Your task to perform on an android device: turn on sleep mode Image 0: 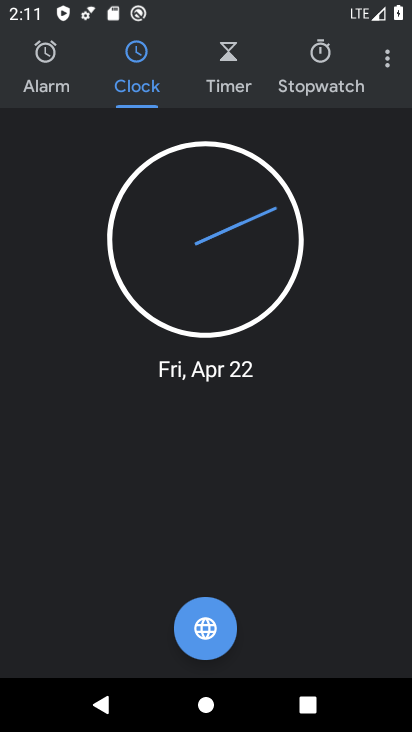
Step 0: press home button
Your task to perform on an android device: turn on sleep mode Image 1: 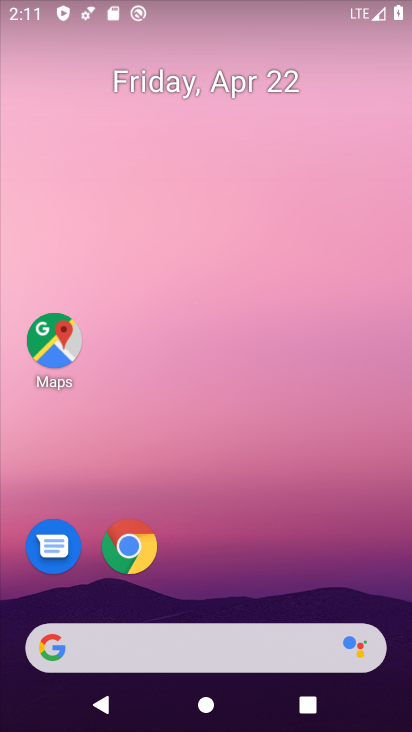
Step 1: drag from (214, 570) to (234, 130)
Your task to perform on an android device: turn on sleep mode Image 2: 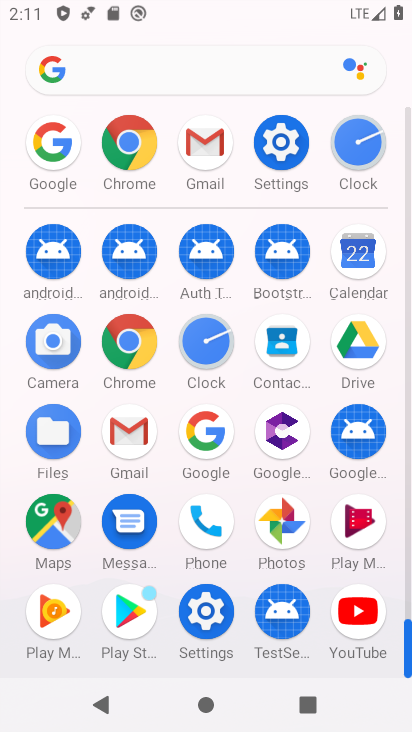
Step 2: click (293, 158)
Your task to perform on an android device: turn on sleep mode Image 3: 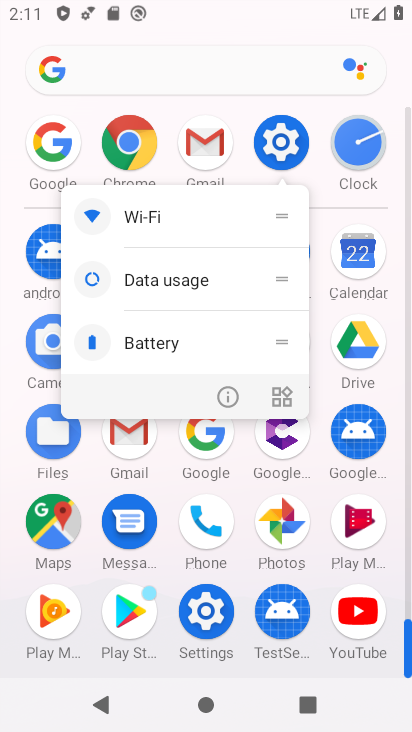
Step 3: click (294, 140)
Your task to perform on an android device: turn on sleep mode Image 4: 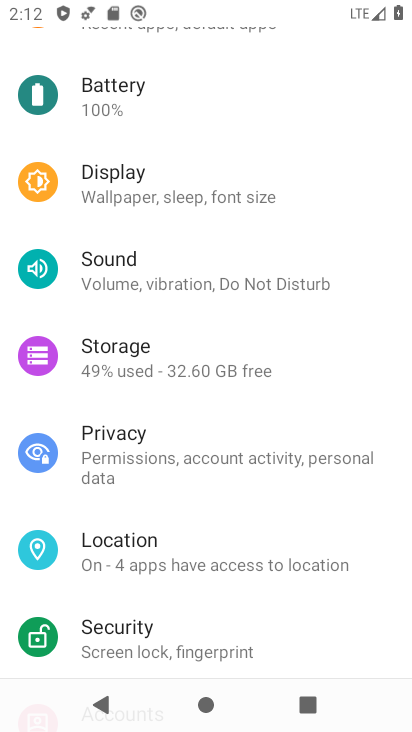
Step 4: click (229, 206)
Your task to perform on an android device: turn on sleep mode Image 5: 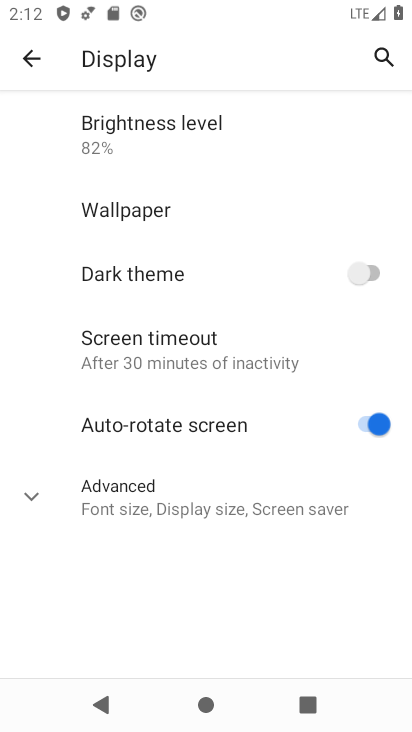
Step 5: click (187, 494)
Your task to perform on an android device: turn on sleep mode Image 6: 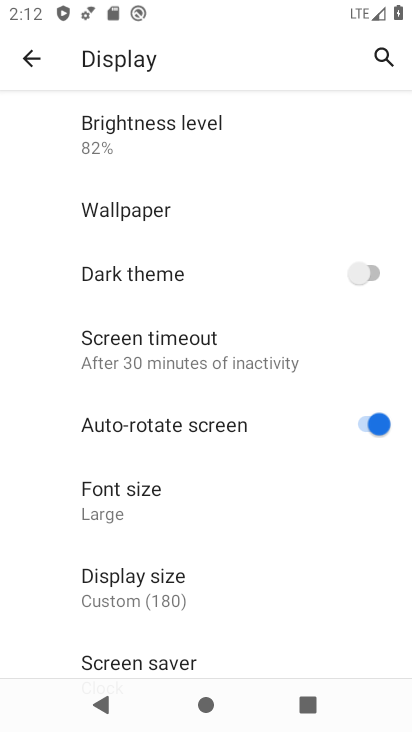
Step 6: task complete